Your task to perform on an android device: see tabs open on other devices in the chrome app Image 0: 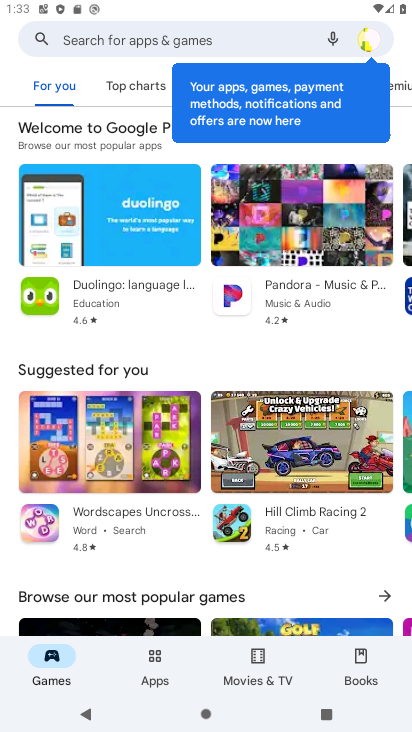
Step 0: press back button
Your task to perform on an android device: see tabs open on other devices in the chrome app Image 1: 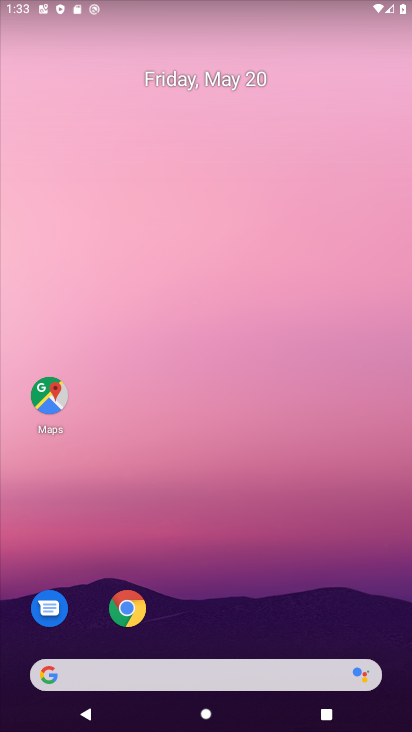
Step 1: click (129, 615)
Your task to perform on an android device: see tabs open on other devices in the chrome app Image 2: 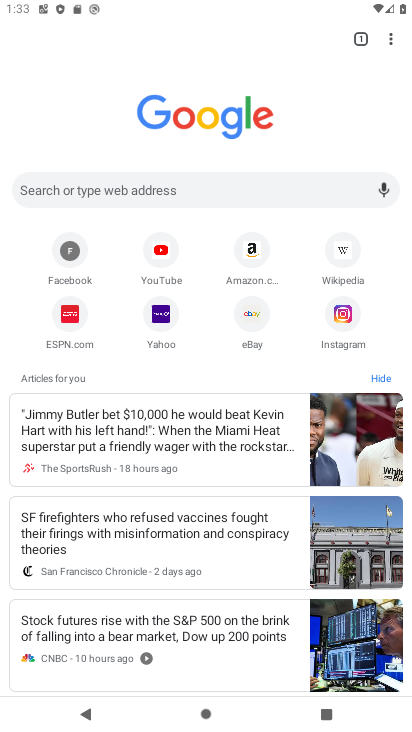
Step 2: task complete